Your task to perform on an android device: Check the news Image 0: 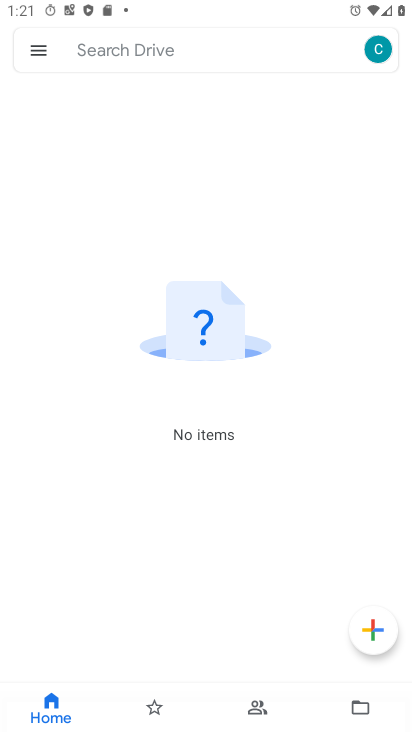
Step 0: press home button
Your task to perform on an android device: Check the news Image 1: 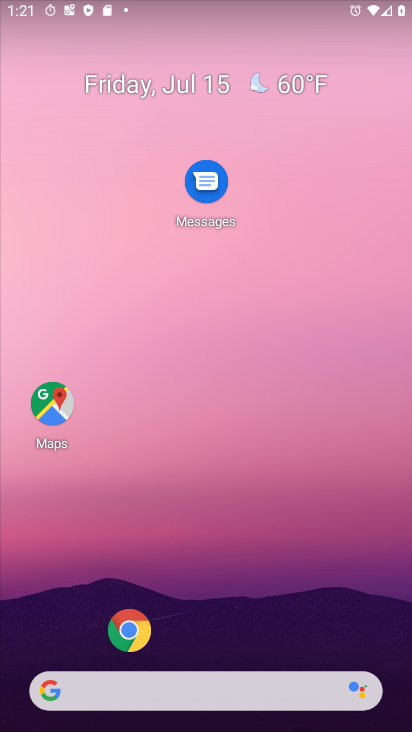
Step 1: click (126, 687)
Your task to perform on an android device: Check the news Image 2: 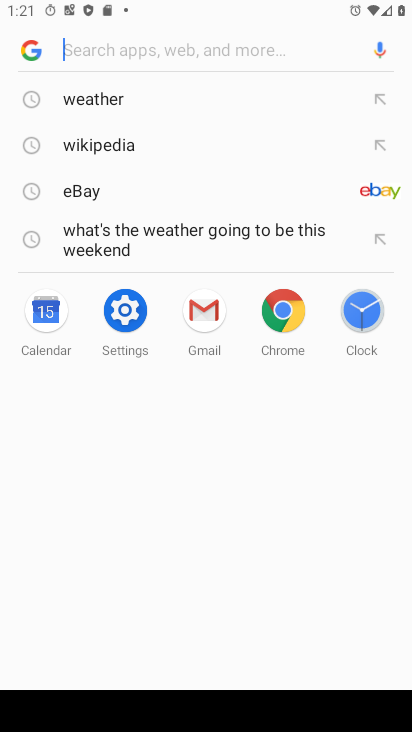
Step 2: click (96, 54)
Your task to perform on an android device: Check the news Image 3: 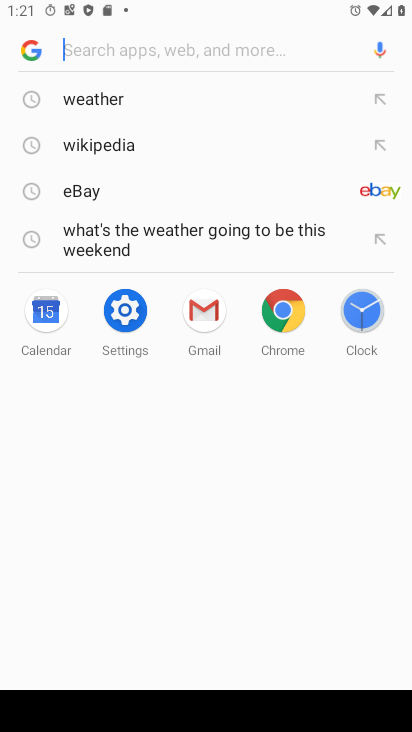
Step 3: type " news"
Your task to perform on an android device: Check the news Image 4: 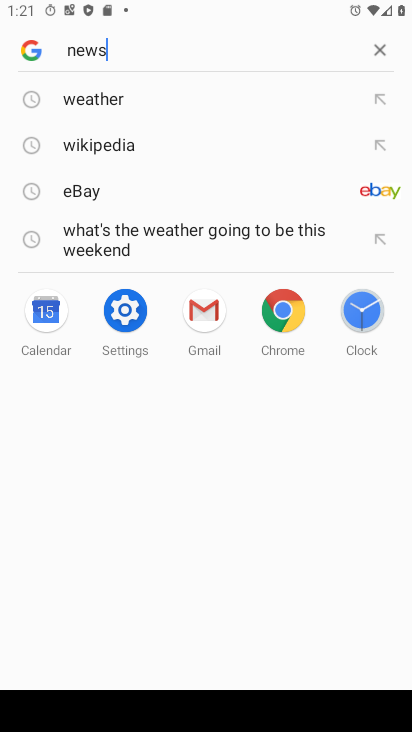
Step 4: type ""
Your task to perform on an android device: Check the news Image 5: 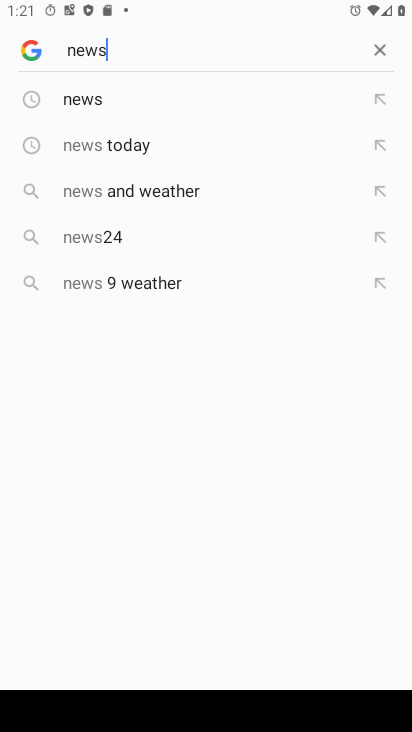
Step 5: click (83, 104)
Your task to perform on an android device: Check the news Image 6: 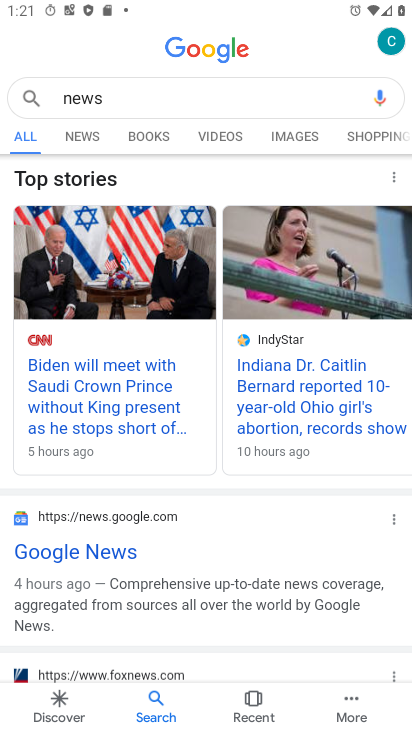
Step 6: task complete